Your task to perform on an android device: Go to Android settings Image 0: 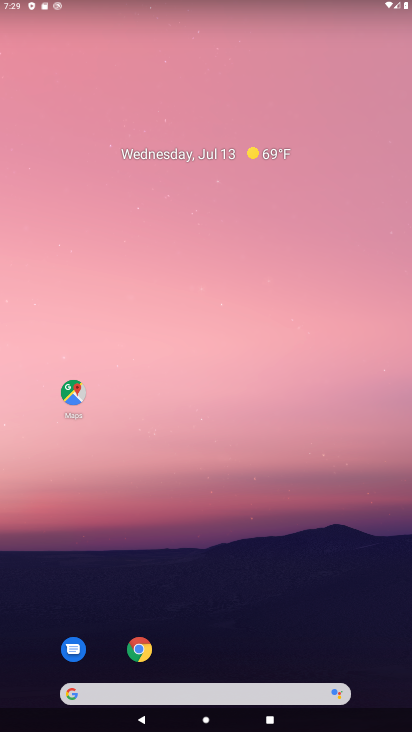
Step 0: drag from (211, 644) to (258, 163)
Your task to perform on an android device: Go to Android settings Image 1: 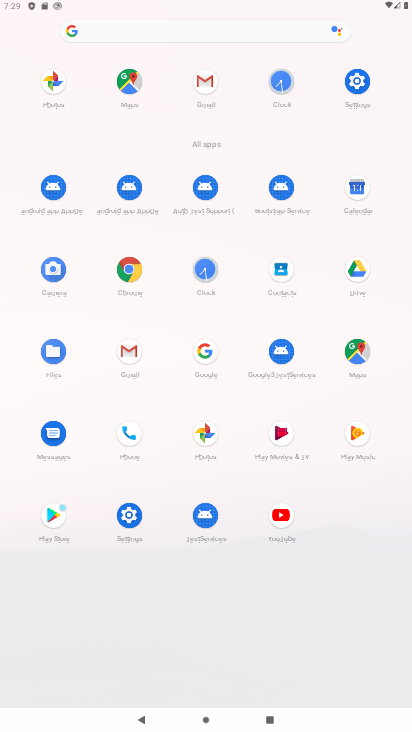
Step 1: click (353, 79)
Your task to perform on an android device: Go to Android settings Image 2: 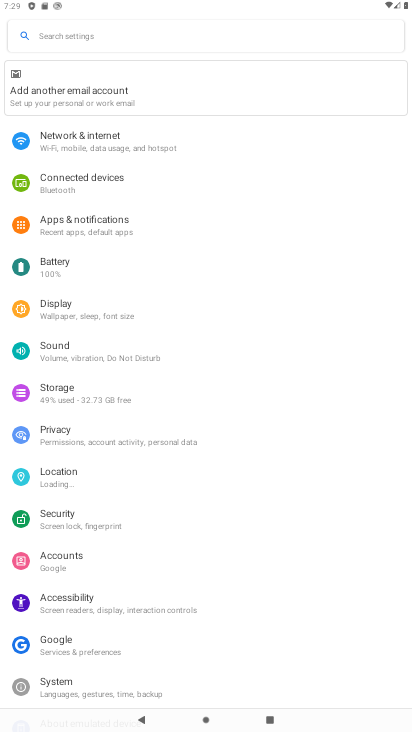
Step 2: task complete